Your task to perform on an android device: see creations saved in the google photos Image 0: 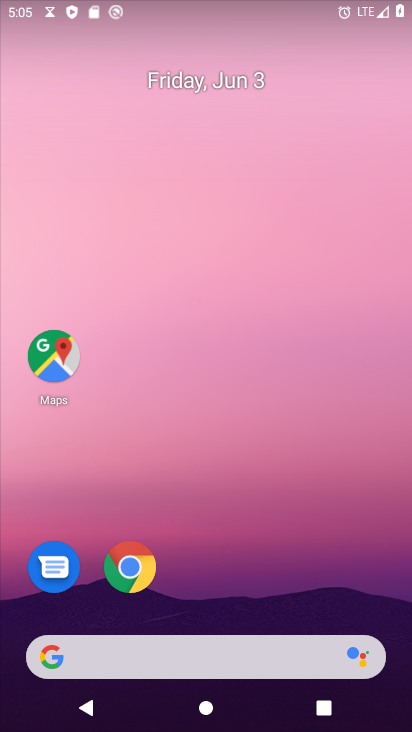
Step 0: drag from (266, 579) to (159, 32)
Your task to perform on an android device: see creations saved in the google photos Image 1: 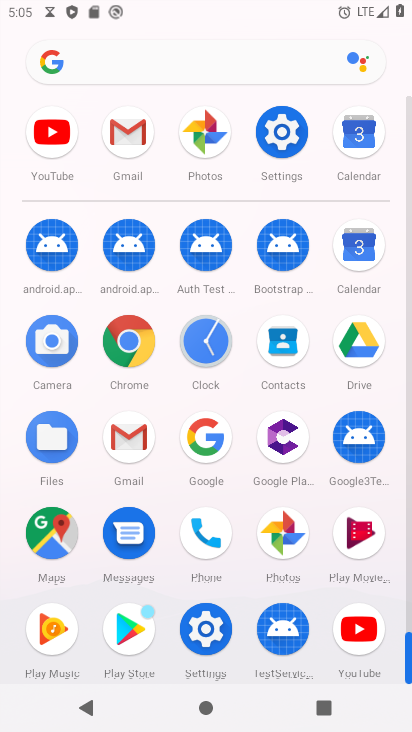
Step 1: click (206, 132)
Your task to perform on an android device: see creations saved in the google photos Image 2: 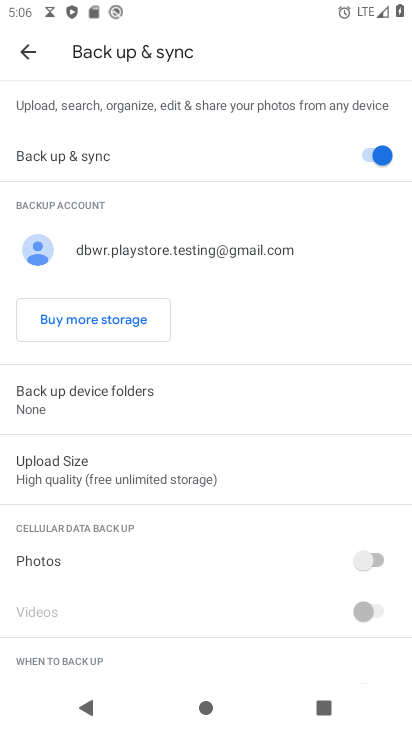
Step 2: click (30, 57)
Your task to perform on an android device: see creations saved in the google photos Image 3: 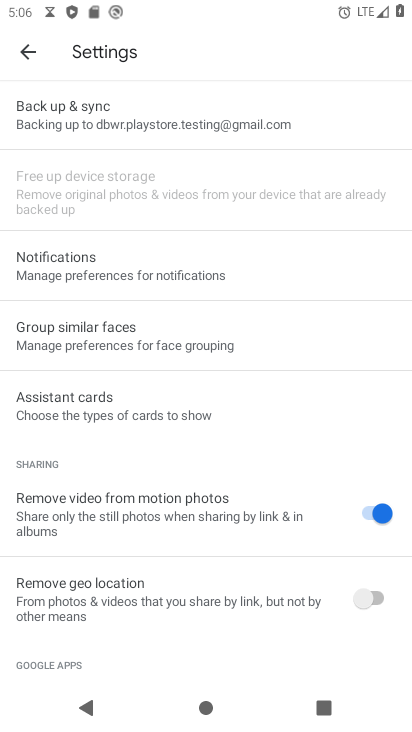
Step 3: click (30, 57)
Your task to perform on an android device: see creations saved in the google photos Image 4: 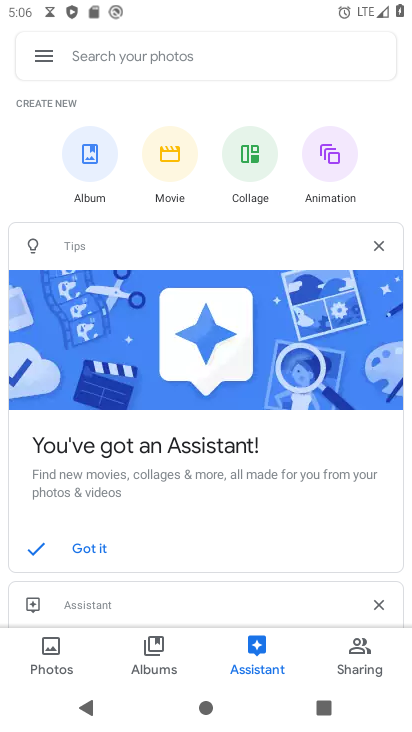
Step 4: click (114, 65)
Your task to perform on an android device: see creations saved in the google photos Image 5: 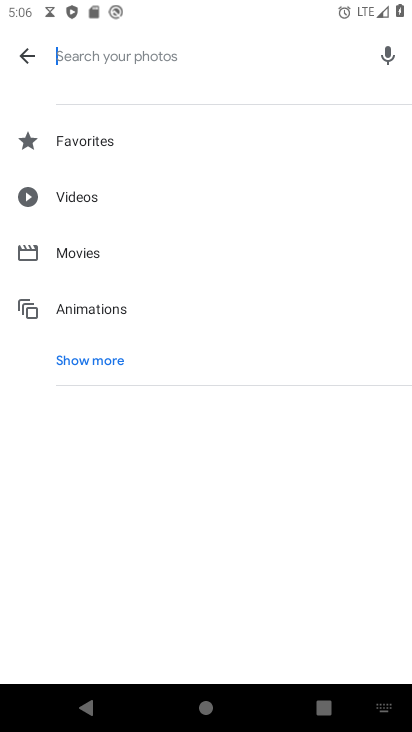
Step 5: click (22, 59)
Your task to perform on an android device: see creations saved in the google photos Image 6: 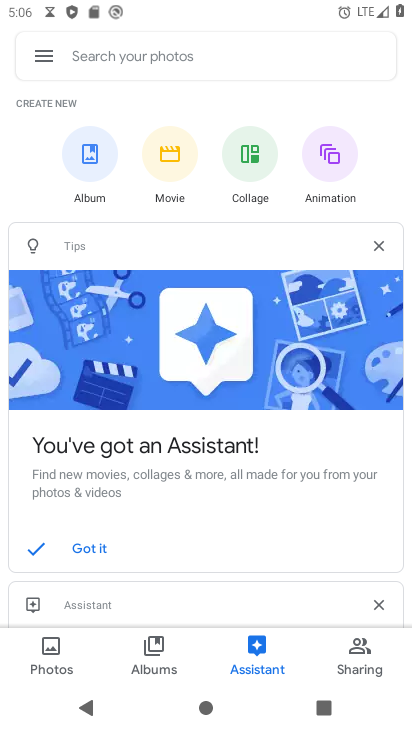
Step 6: task complete